Your task to perform on an android device: turn off location Image 0: 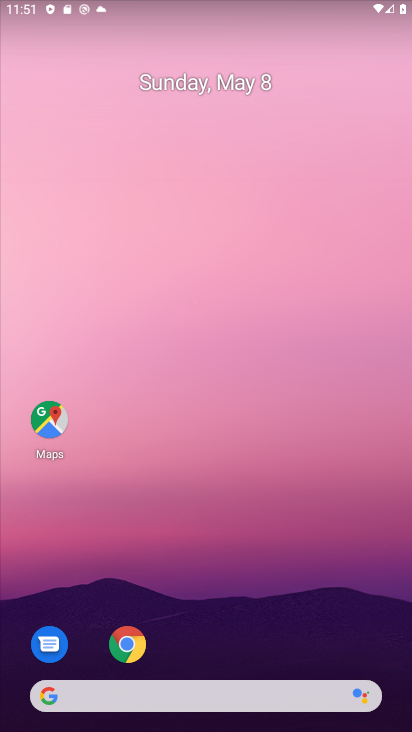
Step 0: drag from (237, 631) to (197, 58)
Your task to perform on an android device: turn off location Image 1: 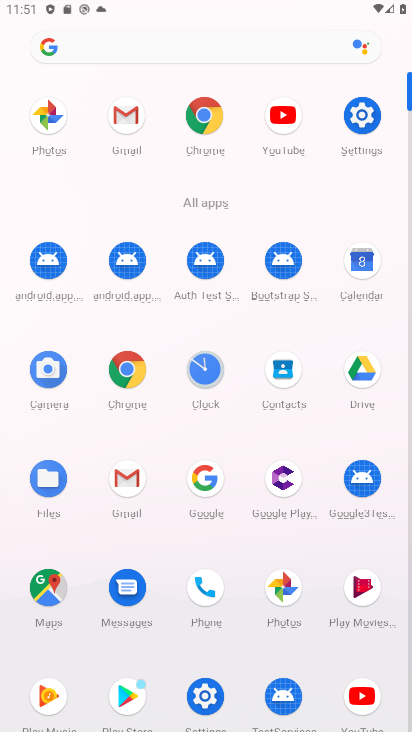
Step 1: click (209, 682)
Your task to perform on an android device: turn off location Image 2: 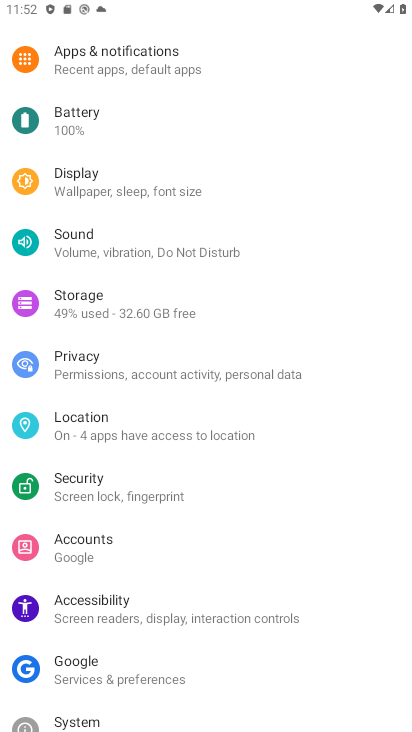
Step 2: click (203, 431)
Your task to perform on an android device: turn off location Image 3: 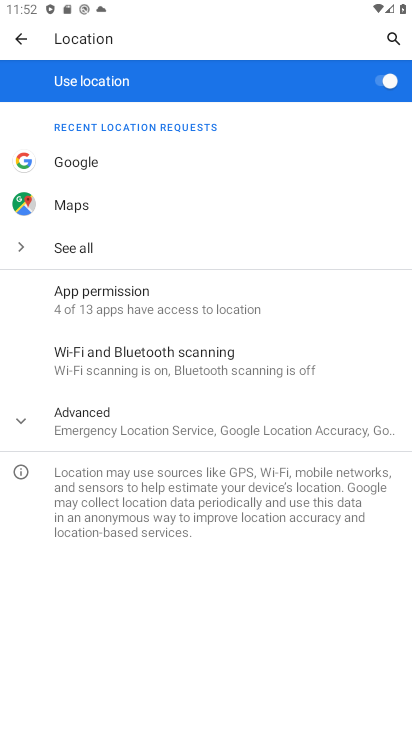
Step 3: click (395, 80)
Your task to perform on an android device: turn off location Image 4: 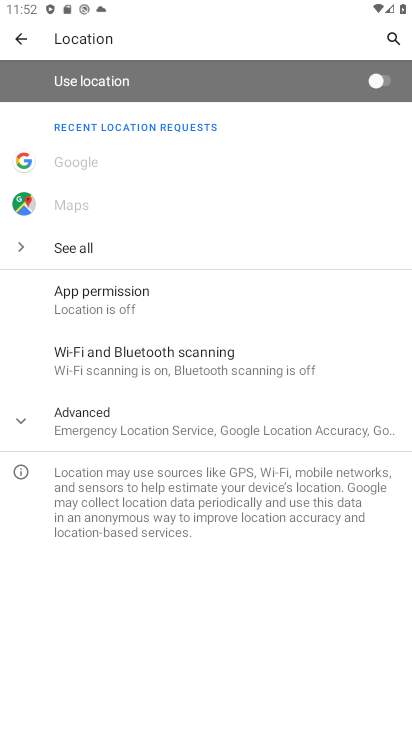
Step 4: task complete